Your task to perform on an android device: turn off improve location accuracy Image 0: 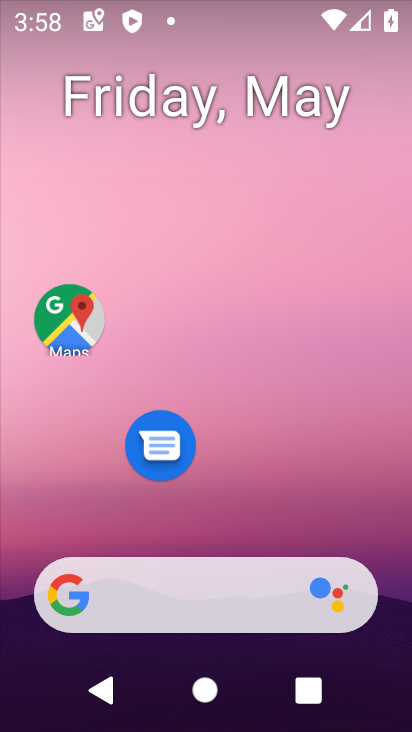
Step 0: drag from (186, 542) to (266, 196)
Your task to perform on an android device: turn off improve location accuracy Image 1: 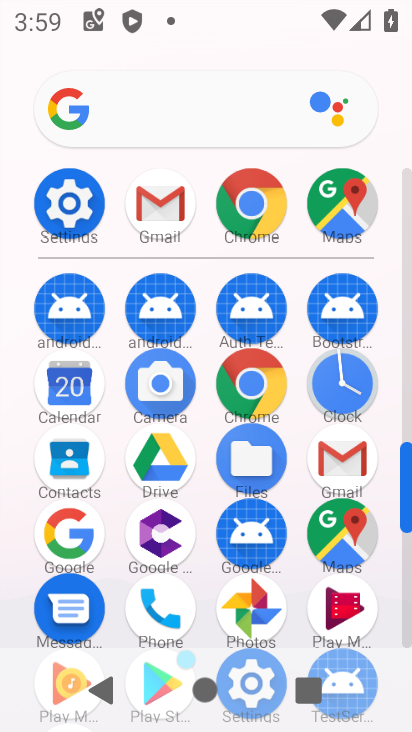
Step 1: click (70, 190)
Your task to perform on an android device: turn off improve location accuracy Image 2: 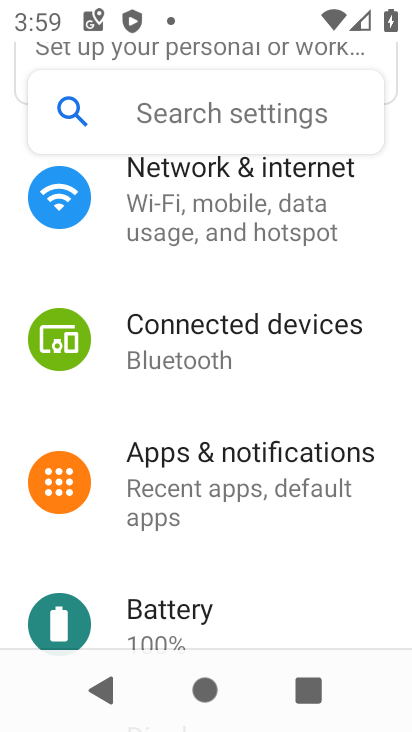
Step 2: drag from (279, 579) to (293, 218)
Your task to perform on an android device: turn off improve location accuracy Image 3: 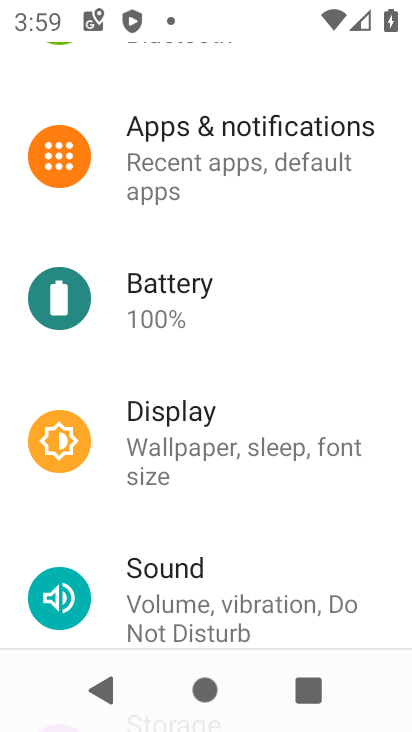
Step 3: drag from (209, 566) to (267, 199)
Your task to perform on an android device: turn off improve location accuracy Image 4: 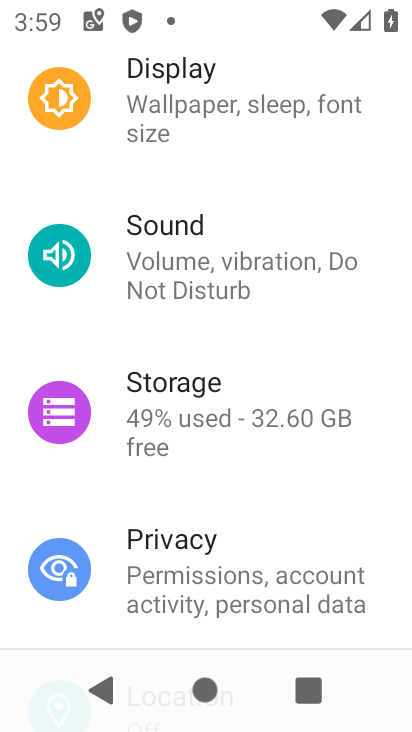
Step 4: drag from (207, 526) to (256, 220)
Your task to perform on an android device: turn off improve location accuracy Image 5: 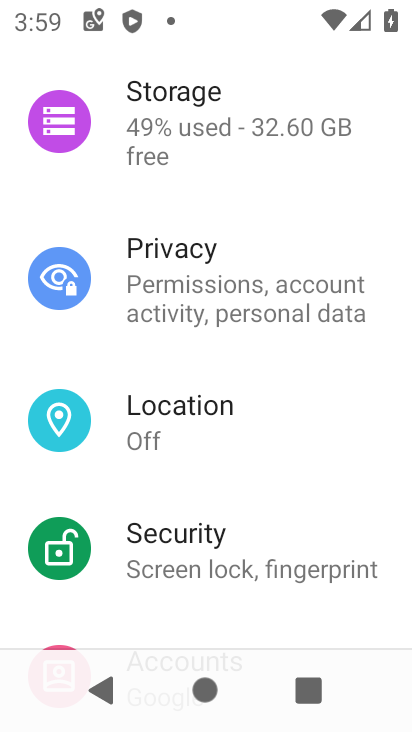
Step 5: click (168, 438)
Your task to perform on an android device: turn off improve location accuracy Image 6: 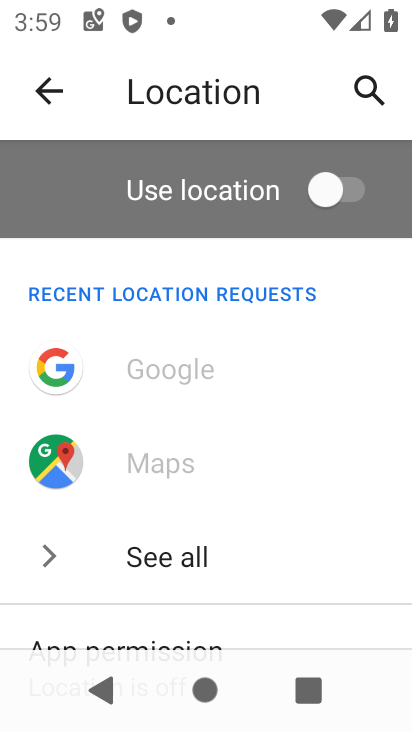
Step 6: drag from (230, 483) to (277, 190)
Your task to perform on an android device: turn off improve location accuracy Image 7: 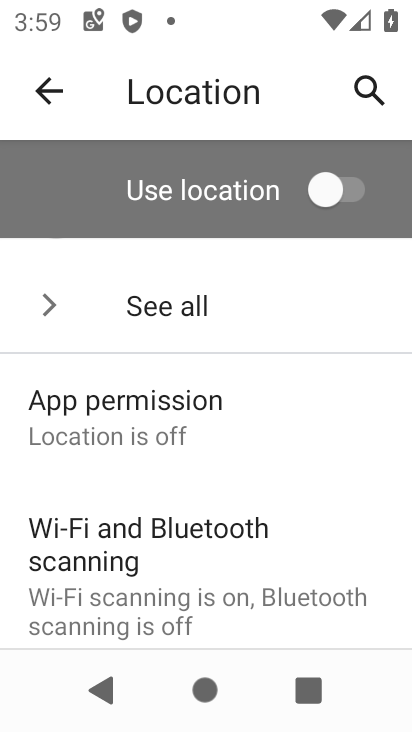
Step 7: drag from (172, 582) to (231, 224)
Your task to perform on an android device: turn off improve location accuracy Image 8: 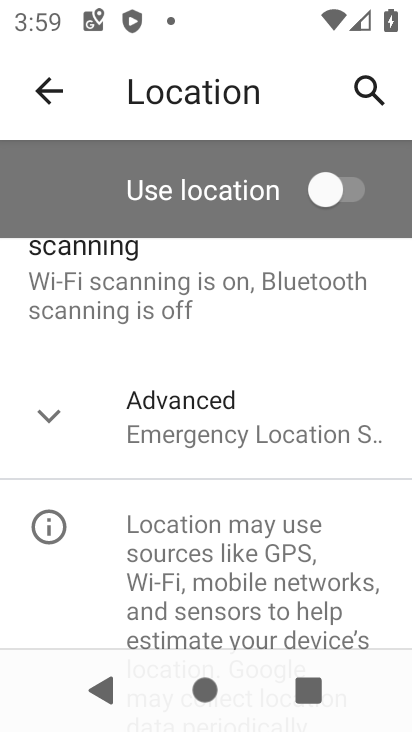
Step 8: click (216, 421)
Your task to perform on an android device: turn off improve location accuracy Image 9: 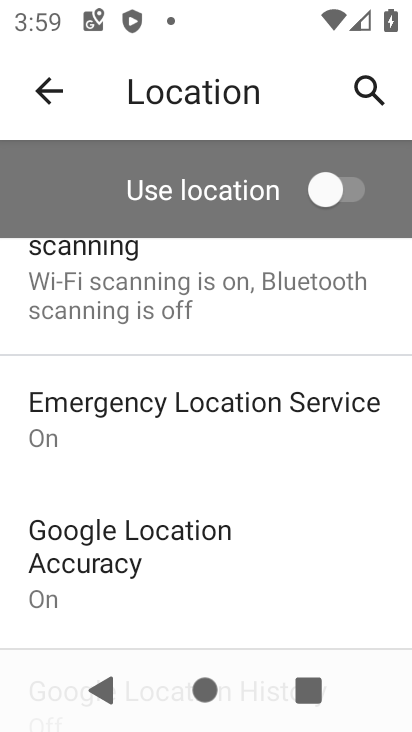
Step 9: drag from (208, 546) to (236, 347)
Your task to perform on an android device: turn off improve location accuracy Image 10: 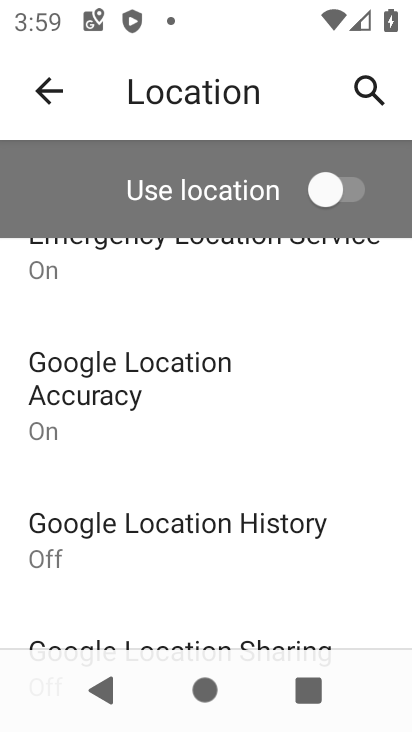
Step 10: click (147, 392)
Your task to perform on an android device: turn off improve location accuracy Image 11: 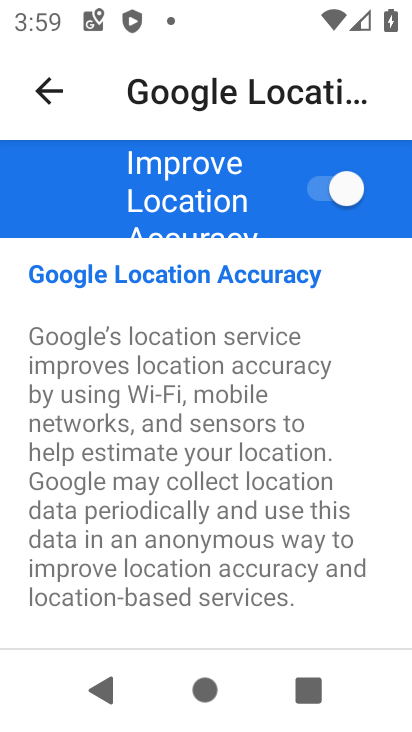
Step 11: click (311, 210)
Your task to perform on an android device: turn off improve location accuracy Image 12: 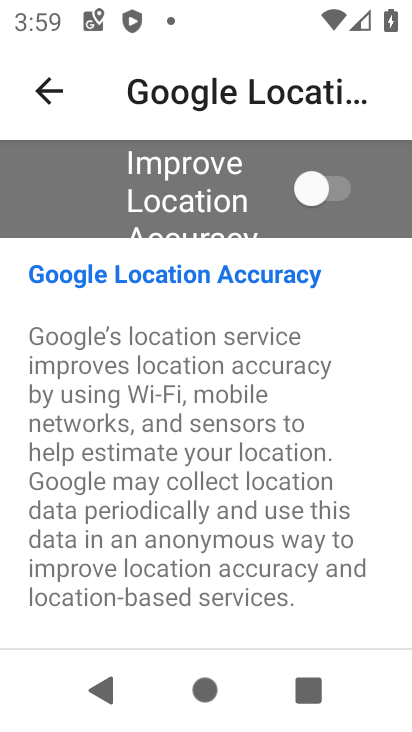
Step 12: task complete